Your task to perform on an android device: see tabs open on other devices in the chrome app Image 0: 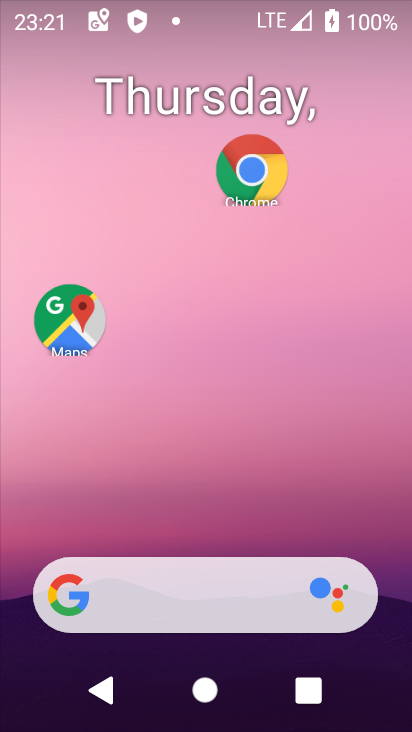
Step 0: drag from (203, 549) to (225, 197)
Your task to perform on an android device: see tabs open on other devices in the chrome app Image 1: 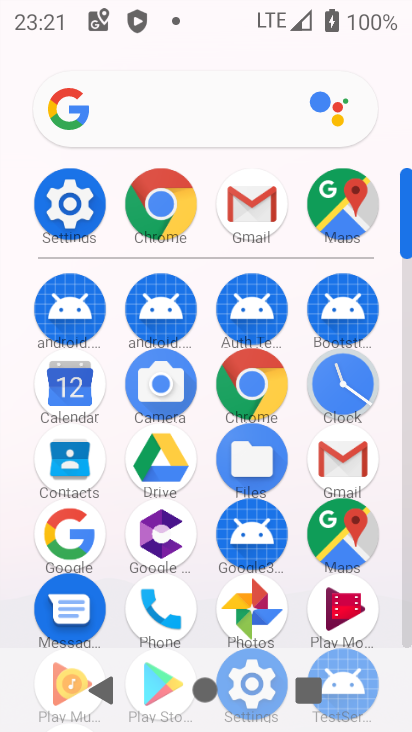
Step 1: click (169, 196)
Your task to perform on an android device: see tabs open on other devices in the chrome app Image 2: 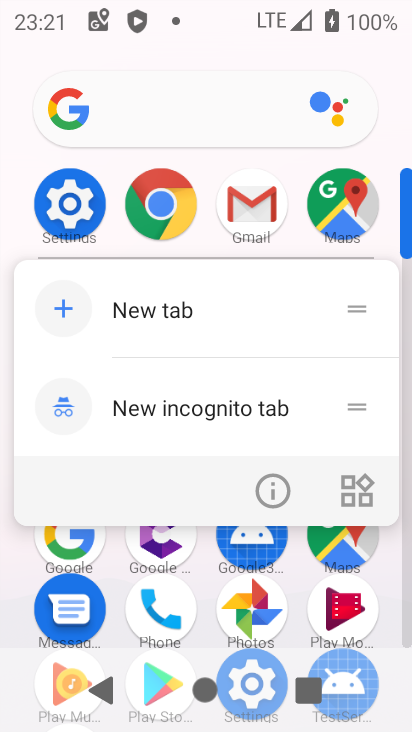
Step 2: click (160, 192)
Your task to perform on an android device: see tabs open on other devices in the chrome app Image 3: 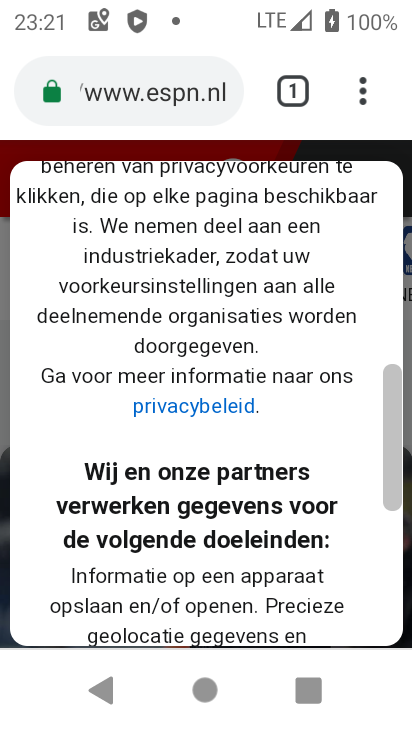
Step 3: click (297, 85)
Your task to perform on an android device: see tabs open on other devices in the chrome app Image 4: 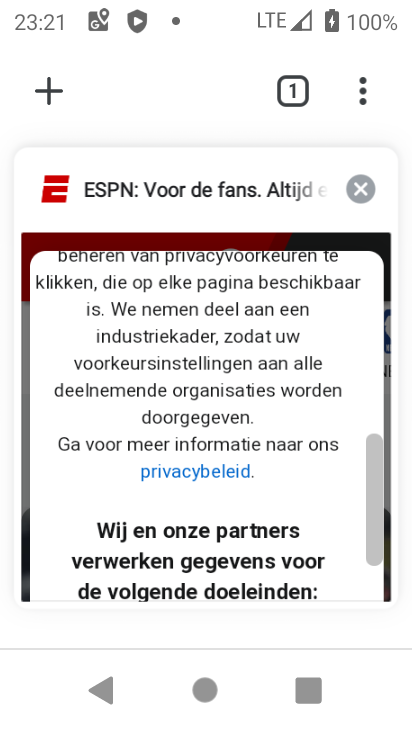
Step 4: task complete